Your task to perform on an android device: Go to settings Image 0: 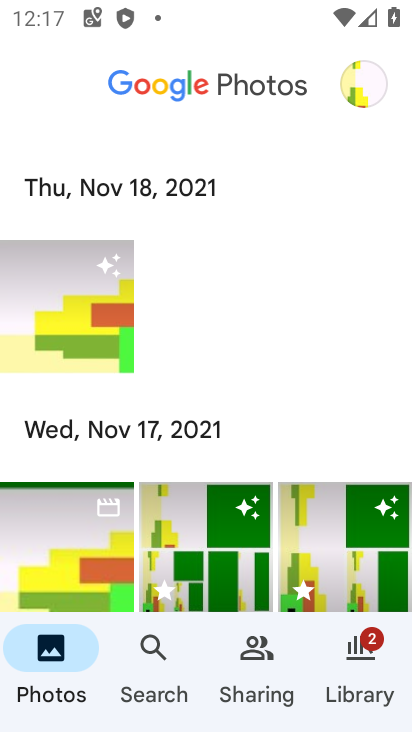
Step 0: press home button
Your task to perform on an android device: Go to settings Image 1: 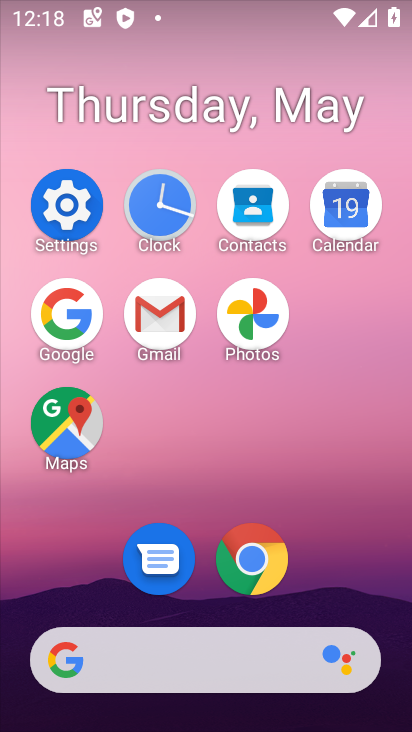
Step 1: click (70, 222)
Your task to perform on an android device: Go to settings Image 2: 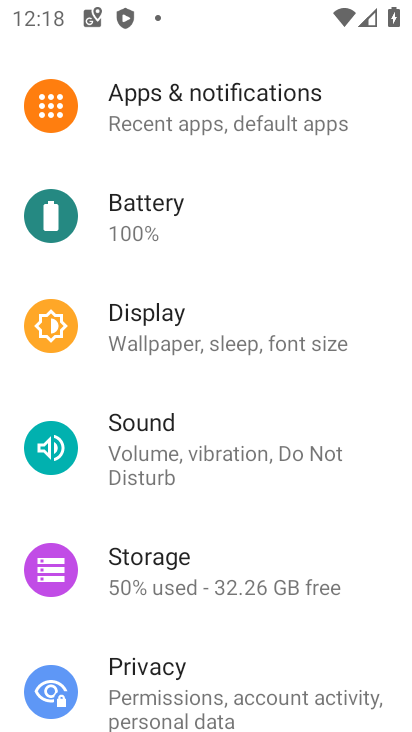
Step 2: task complete